Your task to perform on an android device: change the clock style Image 0: 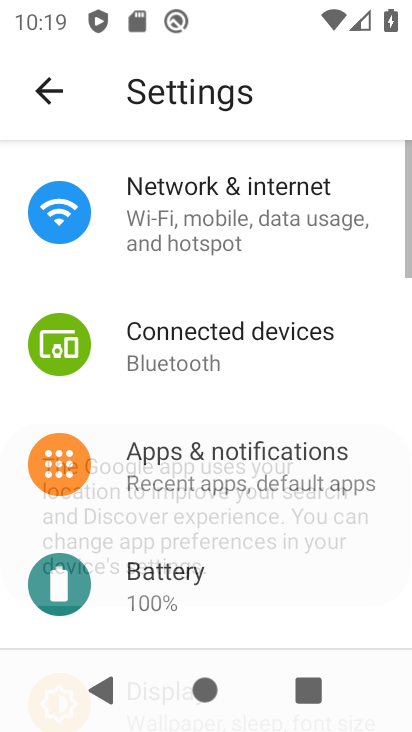
Step 0: press home button
Your task to perform on an android device: change the clock style Image 1: 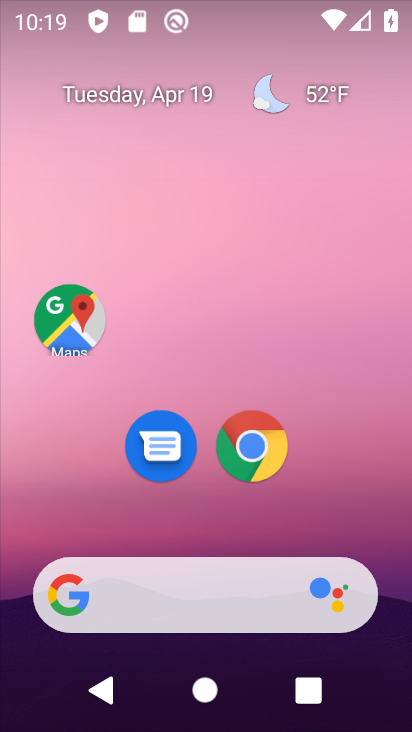
Step 1: drag from (393, 478) to (397, 199)
Your task to perform on an android device: change the clock style Image 2: 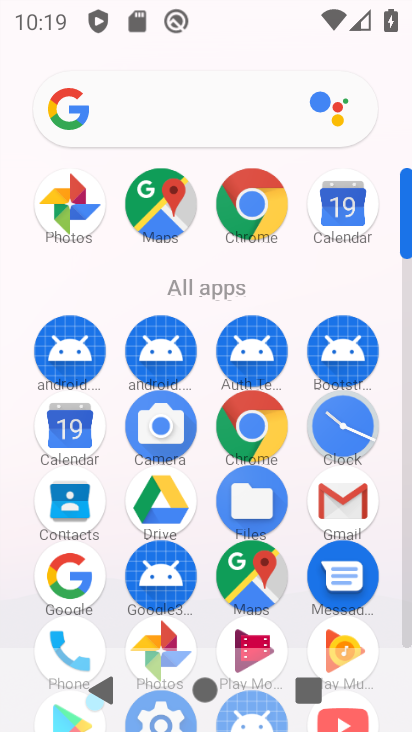
Step 2: drag from (407, 236) to (382, 118)
Your task to perform on an android device: change the clock style Image 3: 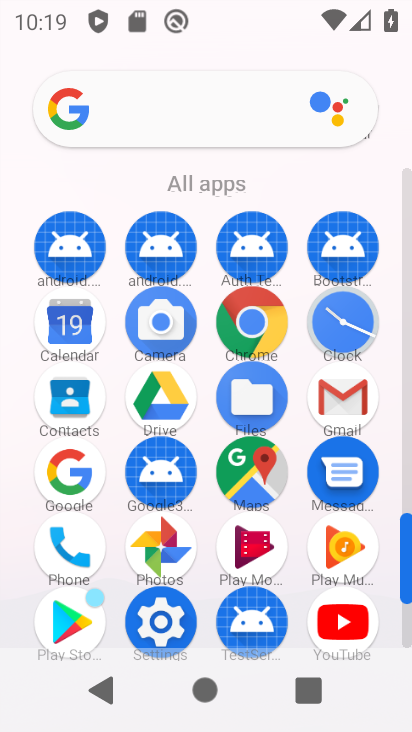
Step 3: click (338, 329)
Your task to perform on an android device: change the clock style Image 4: 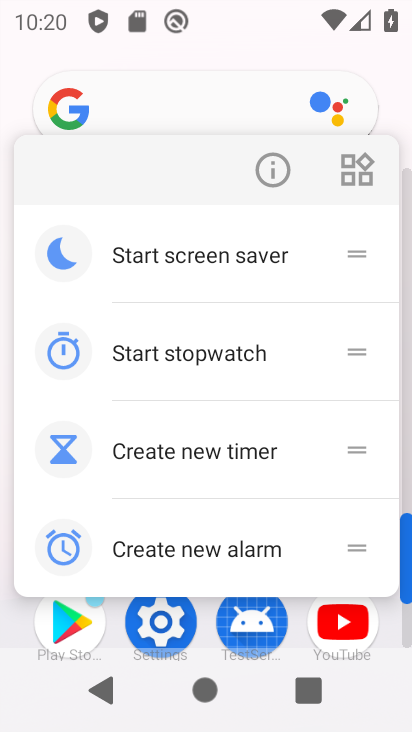
Step 4: press back button
Your task to perform on an android device: change the clock style Image 5: 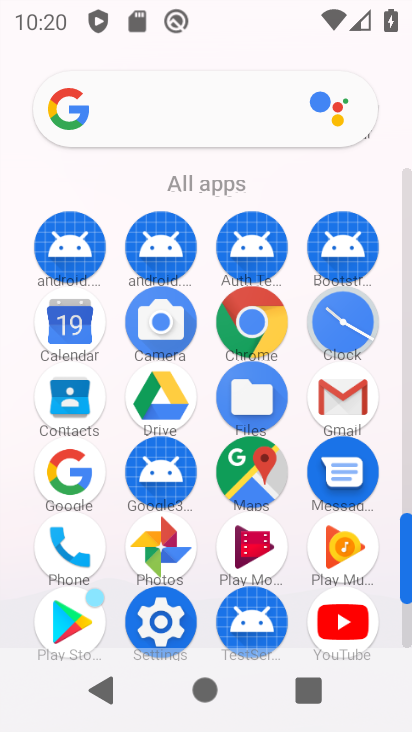
Step 5: click (340, 326)
Your task to perform on an android device: change the clock style Image 6: 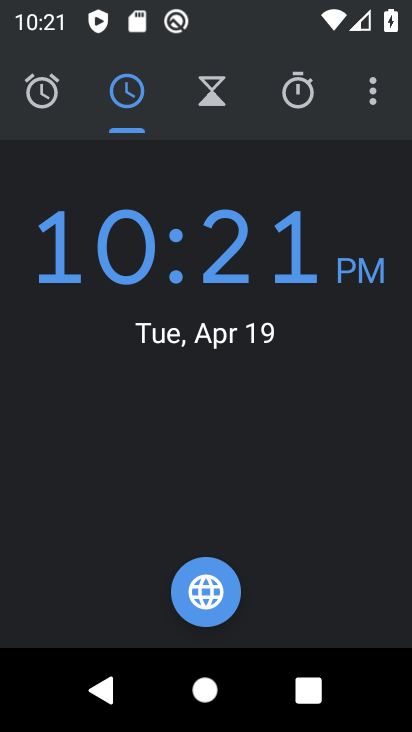
Step 6: click (371, 84)
Your task to perform on an android device: change the clock style Image 7: 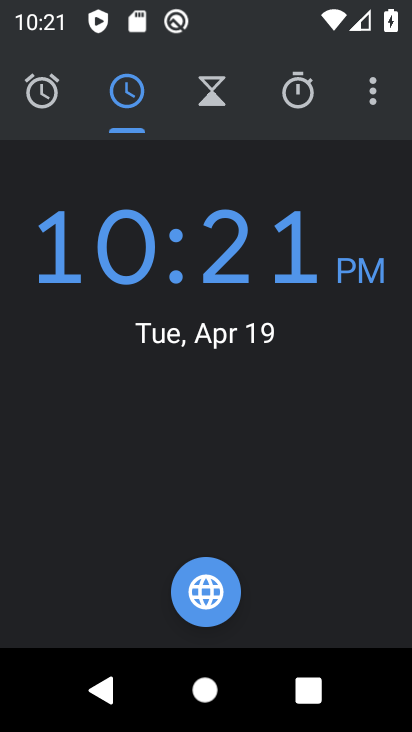
Step 7: click (371, 84)
Your task to perform on an android device: change the clock style Image 8: 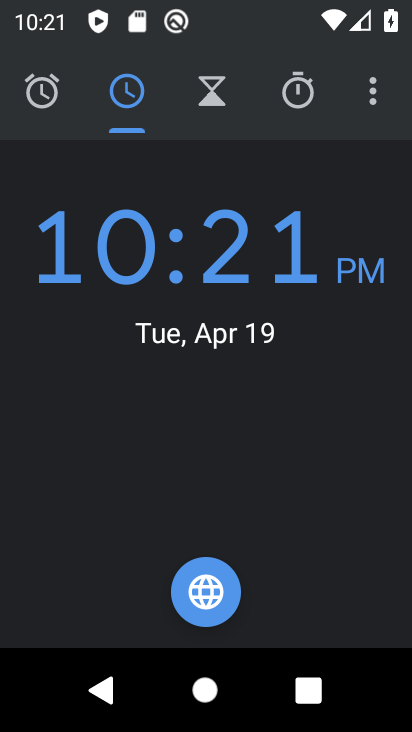
Step 8: click (370, 94)
Your task to perform on an android device: change the clock style Image 9: 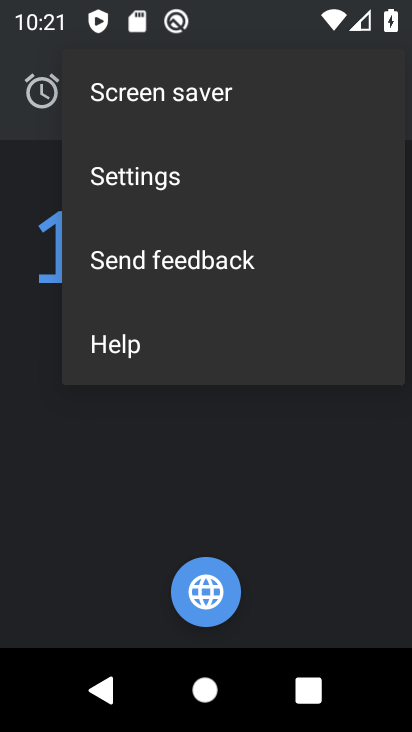
Step 9: click (143, 174)
Your task to perform on an android device: change the clock style Image 10: 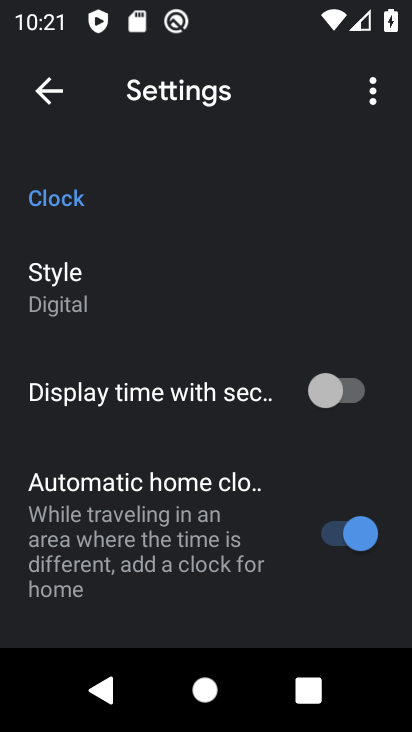
Step 10: click (55, 286)
Your task to perform on an android device: change the clock style Image 11: 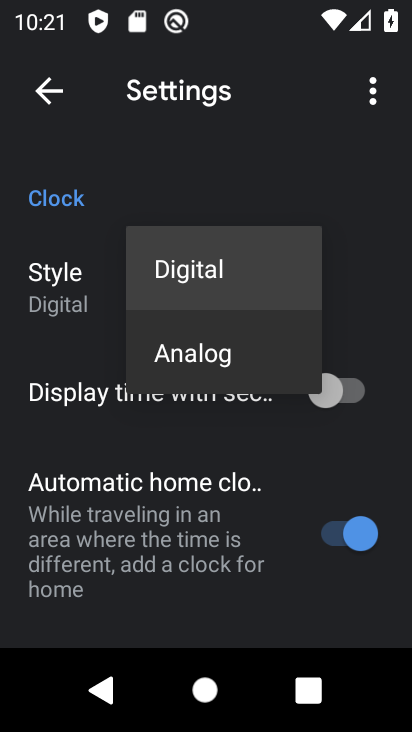
Step 11: click (161, 345)
Your task to perform on an android device: change the clock style Image 12: 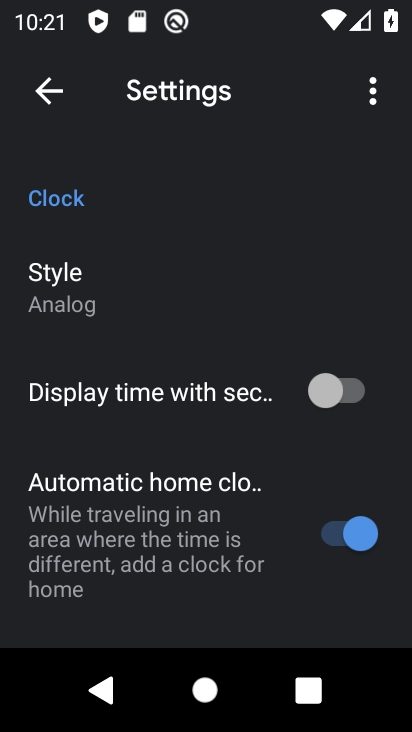
Step 12: task complete